Your task to perform on an android device: allow notifications from all sites in the chrome app Image 0: 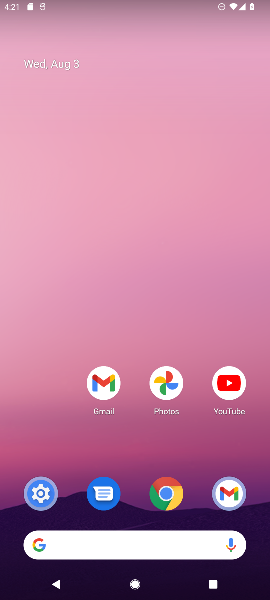
Step 0: drag from (43, 410) to (47, 68)
Your task to perform on an android device: allow notifications from all sites in the chrome app Image 1: 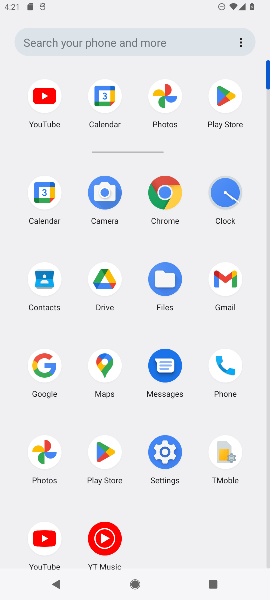
Step 1: click (171, 194)
Your task to perform on an android device: allow notifications from all sites in the chrome app Image 2: 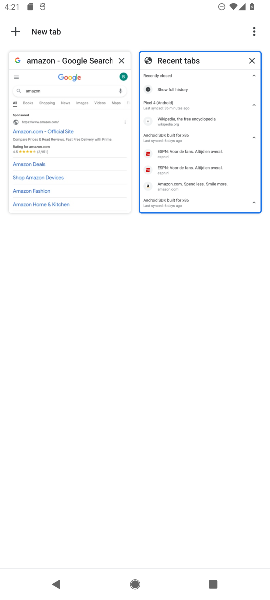
Step 2: click (254, 30)
Your task to perform on an android device: allow notifications from all sites in the chrome app Image 3: 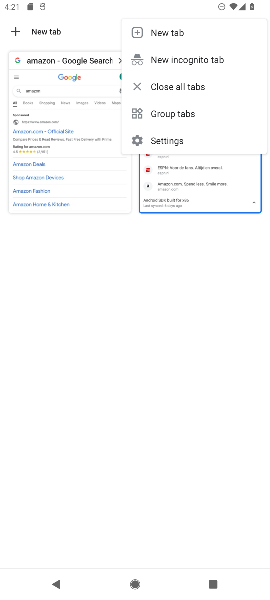
Step 3: click (186, 144)
Your task to perform on an android device: allow notifications from all sites in the chrome app Image 4: 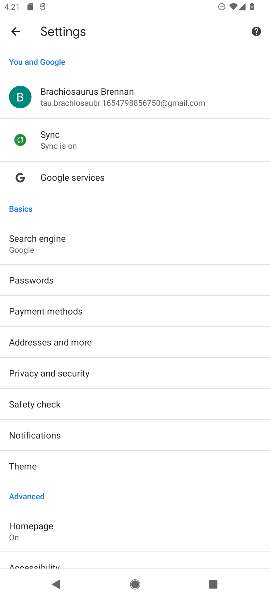
Step 4: drag from (169, 410) to (178, 303)
Your task to perform on an android device: allow notifications from all sites in the chrome app Image 5: 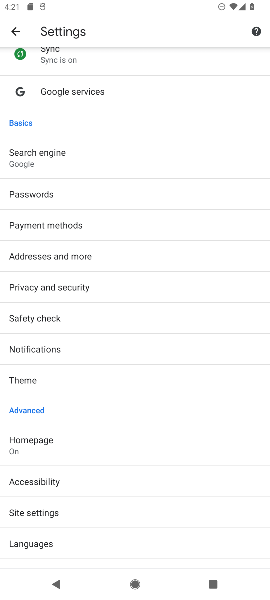
Step 5: drag from (180, 440) to (184, 311)
Your task to perform on an android device: allow notifications from all sites in the chrome app Image 6: 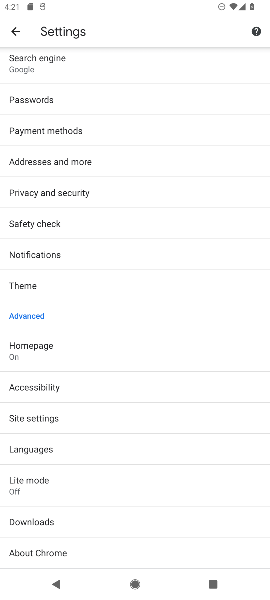
Step 6: drag from (182, 462) to (182, 314)
Your task to perform on an android device: allow notifications from all sites in the chrome app Image 7: 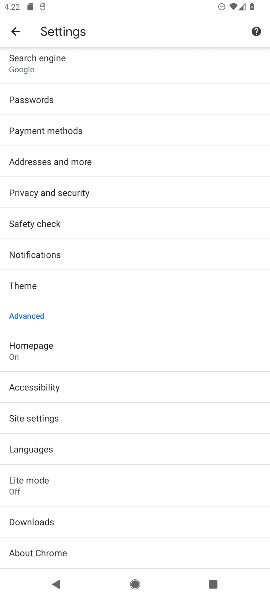
Step 7: drag from (163, 473) to (175, 387)
Your task to perform on an android device: allow notifications from all sites in the chrome app Image 8: 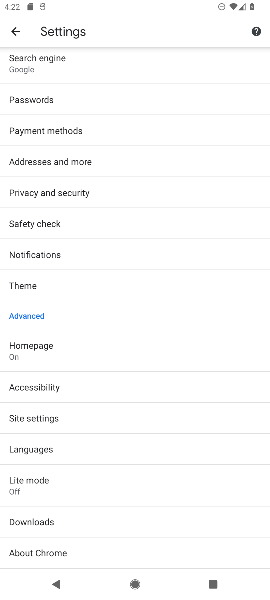
Step 8: drag from (171, 406) to (178, 339)
Your task to perform on an android device: allow notifications from all sites in the chrome app Image 9: 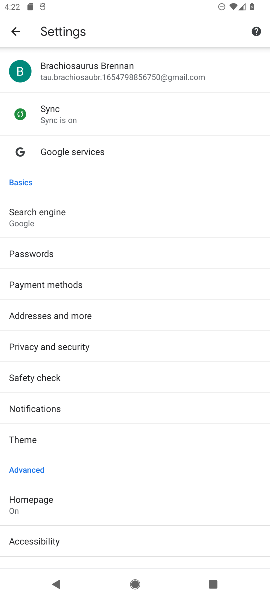
Step 9: drag from (177, 436) to (179, 326)
Your task to perform on an android device: allow notifications from all sites in the chrome app Image 10: 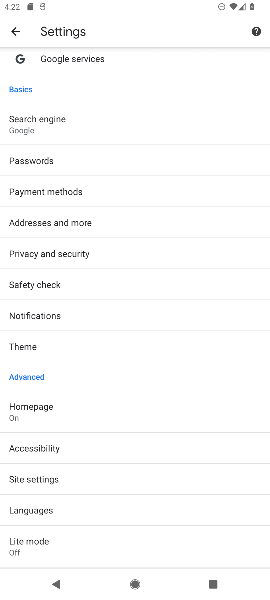
Step 10: click (158, 480)
Your task to perform on an android device: allow notifications from all sites in the chrome app Image 11: 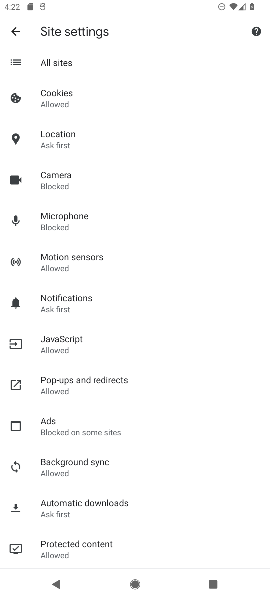
Step 11: drag from (205, 468) to (214, 316)
Your task to perform on an android device: allow notifications from all sites in the chrome app Image 12: 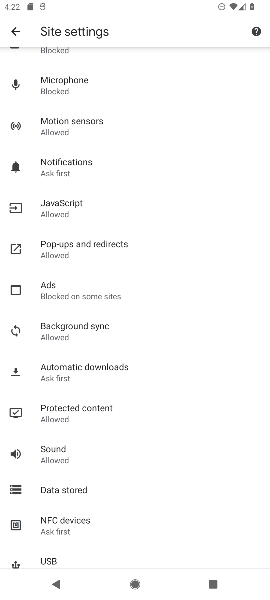
Step 12: drag from (164, 431) to (173, 329)
Your task to perform on an android device: allow notifications from all sites in the chrome app Image 13: 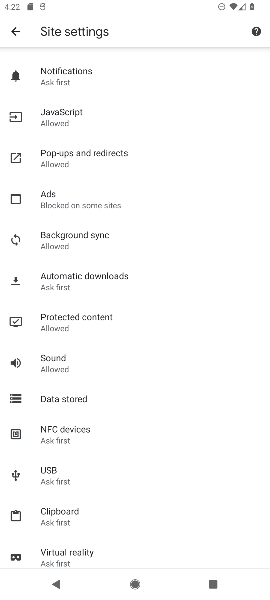
Step 13: drag from (184, 216) to (185, 296)
Your task to perform on an android device: allow notifications from all sites in the chrome app Image 14: 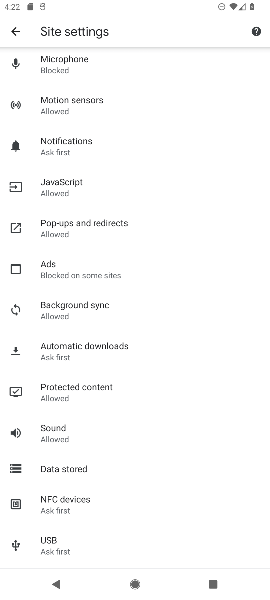
Step 14: drag from (184, 132) to (184, 235)
Your task to perform on an android device: allow notifications from all sites in the chrome app Image 15: 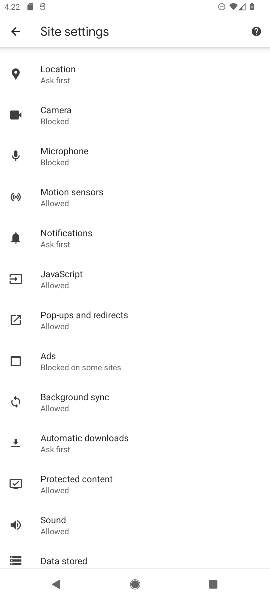
Step 15: click (89, 245)
Your task to perform on an android device: allow notifications from all sites in the chrome app Image 16: 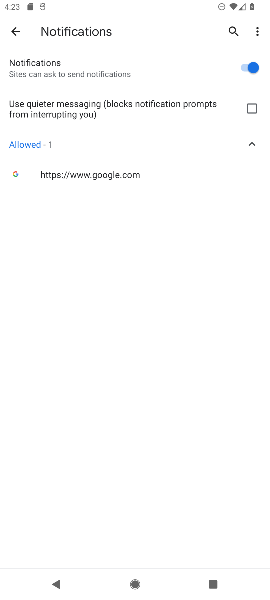
Step 16: task complete